Your task to perform on an android device: Go to Google maps Image 0: 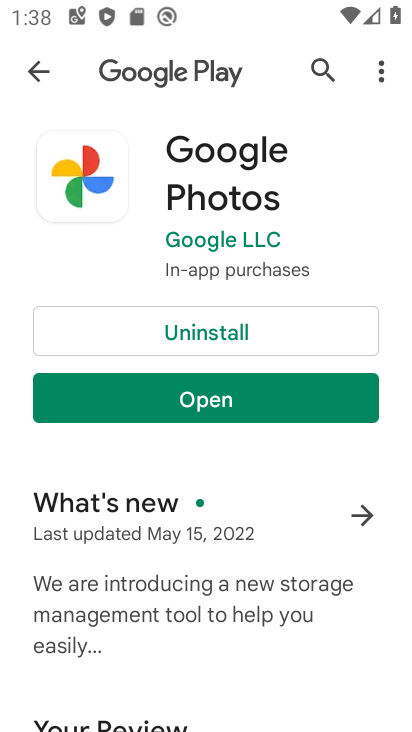
Step 0: press home button
Your task to perform on an android device: Go to Google maps Image 1: 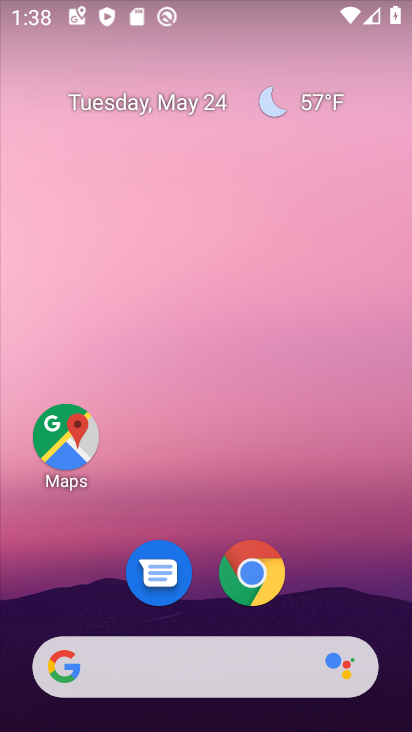
Step 1: drag from (330, 520) to (337, 151)
Your task to perform on an android device: Go to Google maps Image 2: 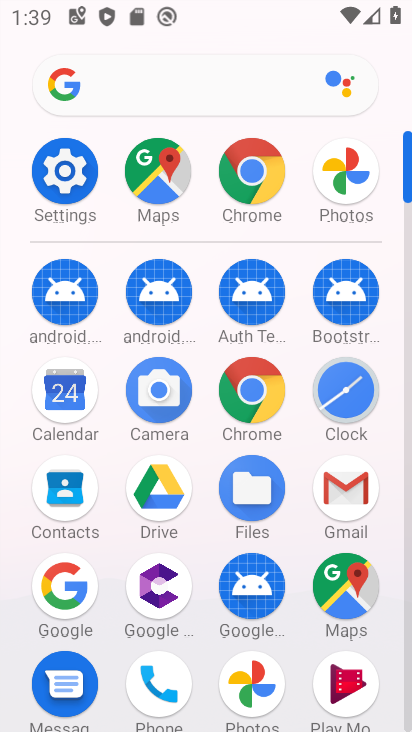
Step 2: click (327, 590)
Your task to perform on an android device: Go to Google maps Image 3: 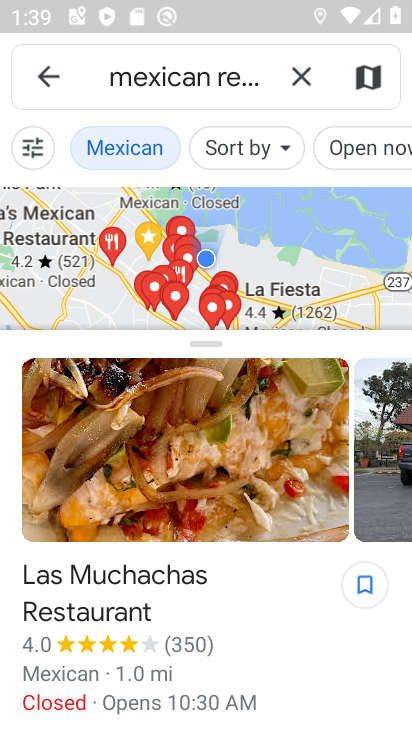
Step 3: task complete